Your task to perform on an android device: turn off picture-in-picture Image 0: 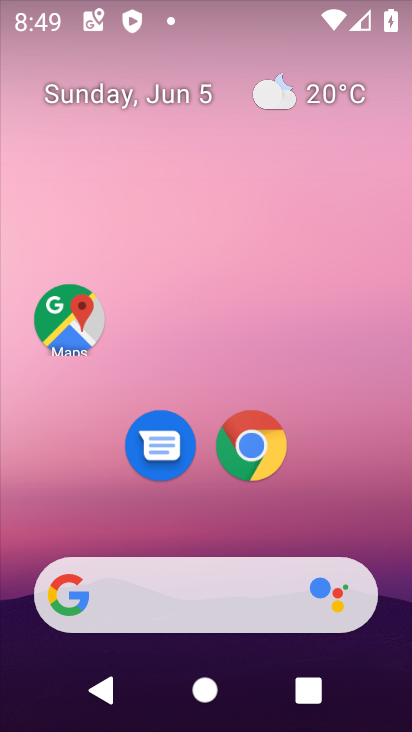
Step 0: drag from (259, 624) to (187, 15)
Your task to perform on an android device: turn off picture-in-picture Image 1: 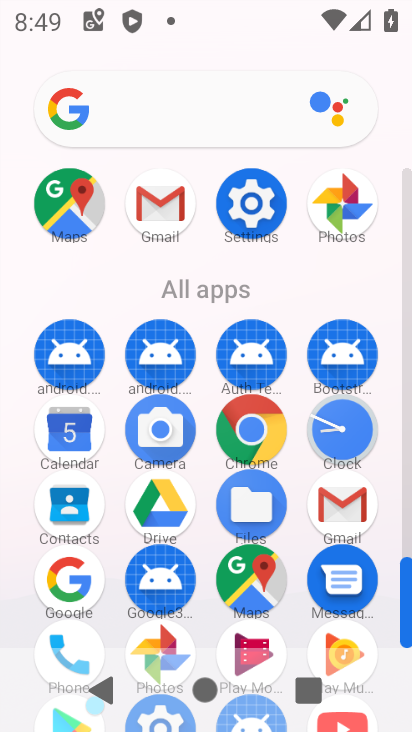
Step 1: click (259, 192)
Your task to perform on an android device: turn off picture-in-picture Image 2: 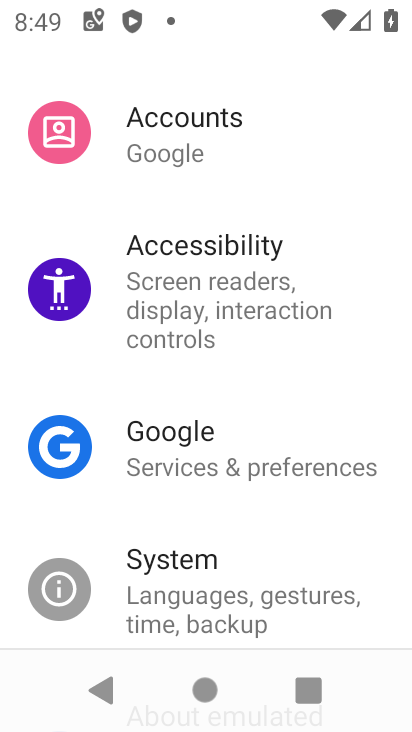
Step 2: drag from (298, 202) to (291, 660)
Your task to perform on an android device: turn off picture-in-picture Image 3: 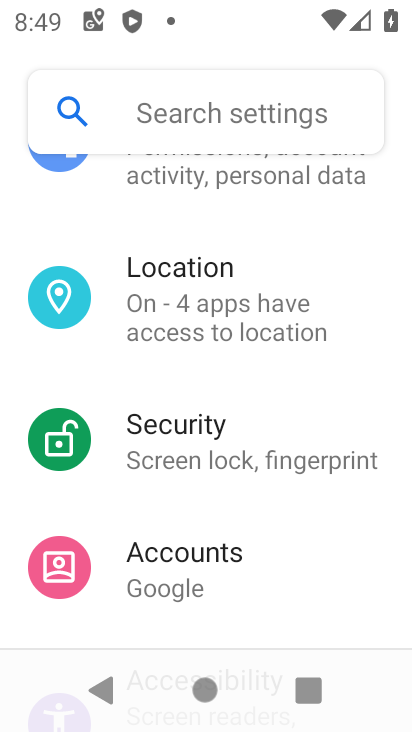
Step 3: drag from (342, 254) to (295, 620)
Your task to perform on an android device: turn off picture-in-picture Image 4: 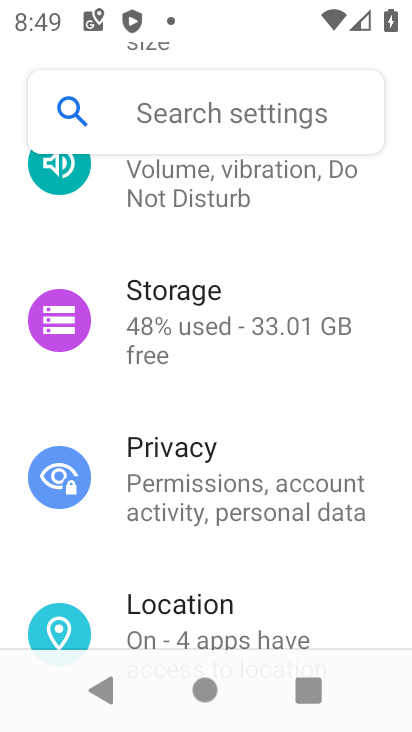
Step 4: drag from (320, 297) to (278, 590)
Your task to perform on an android device: turn off picture-in-picture Image 5: 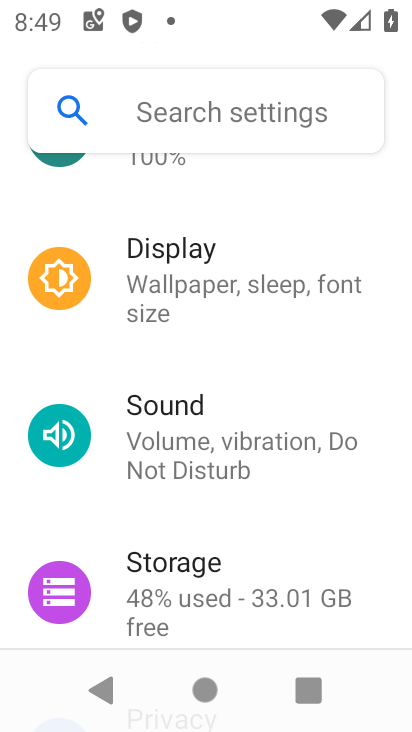
Step 5: drag from (314, 292) to (267, 597)
Your task to perform on an android device: turn off picture-in-picture Image 6: 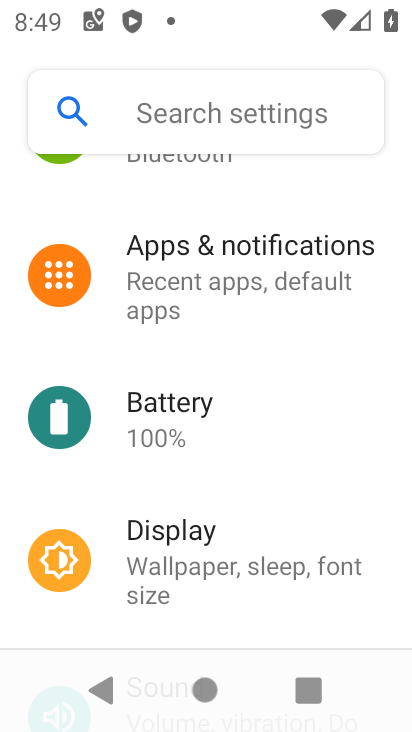
Step 6: click (286, 266)
Your task to perform on an android device: turn off picture-in-picture Image 7: 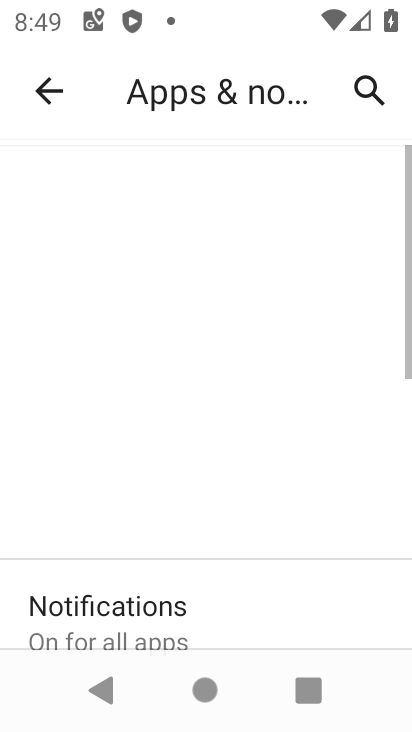
Step 7: drag from (237, 584) to (278, 98)
Your task to perform on an android device: turn off picture-in-picture Image 8: 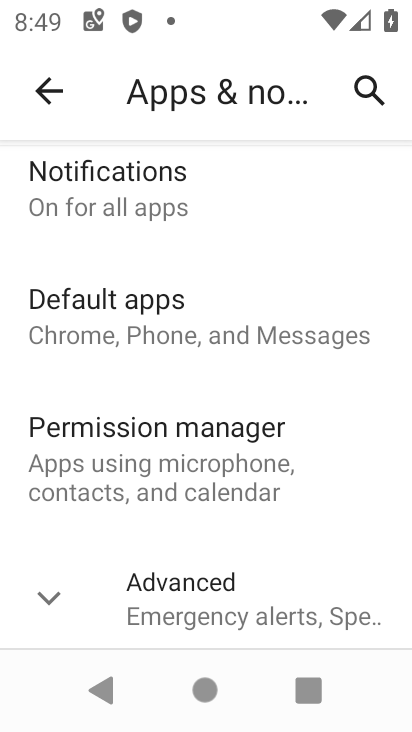
Step 8: click (230, 586)
Your task to perform on an android device: turn off picture-in-picture Image 9: 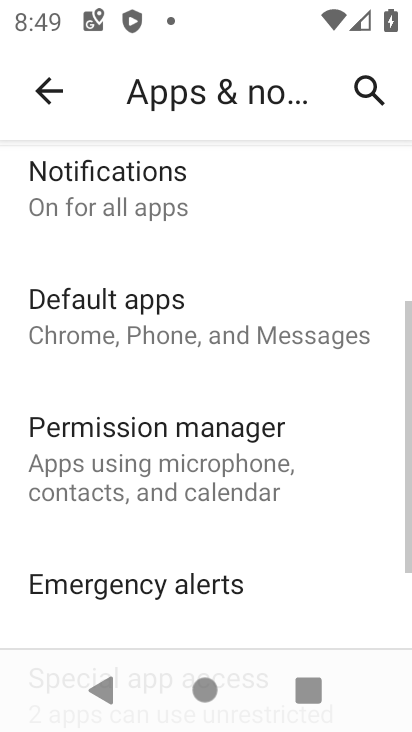
Step 9: drag from (248, 589) to (304, 178)
Your task to perform on an android device: turn off picture-in-picture Image 10: 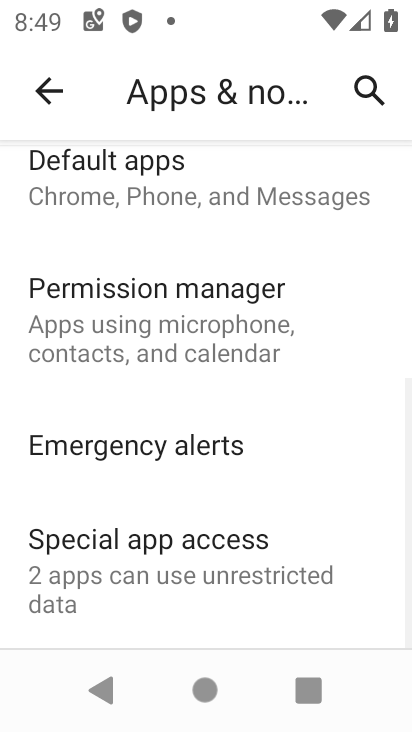
Step 10: click (254, 585)
Your task to perform on an android device: turn off picture-in-picture Image 11: 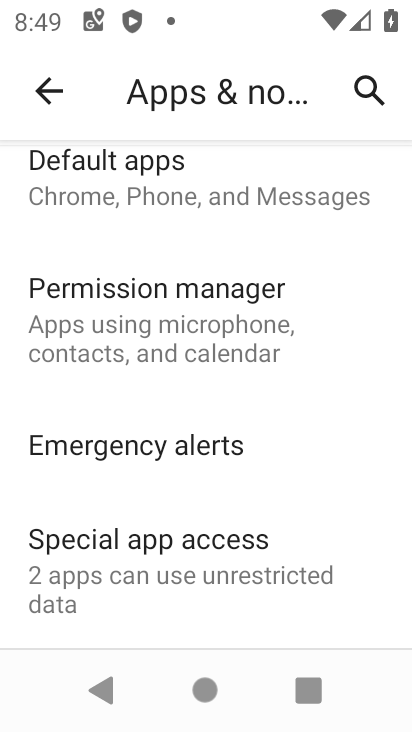
Step 11: click (273, 570)
Your task to perform on an android device: turn off picture-in-picture Image 12: 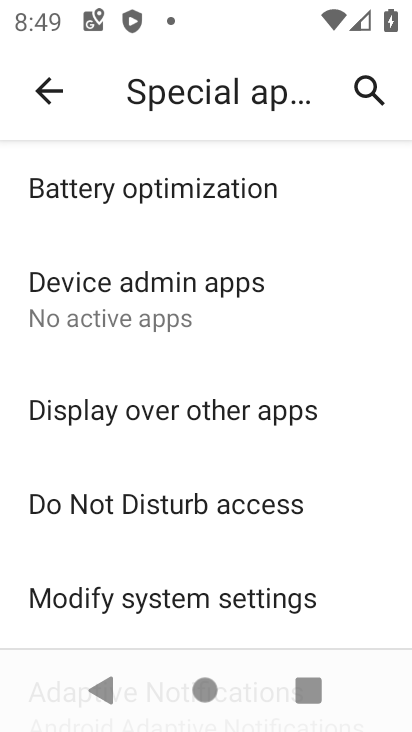
Step 12: drag from (264, 582) to (219, 104)
Your task to perform on an android device: turn off picture-in-picture Image 13: 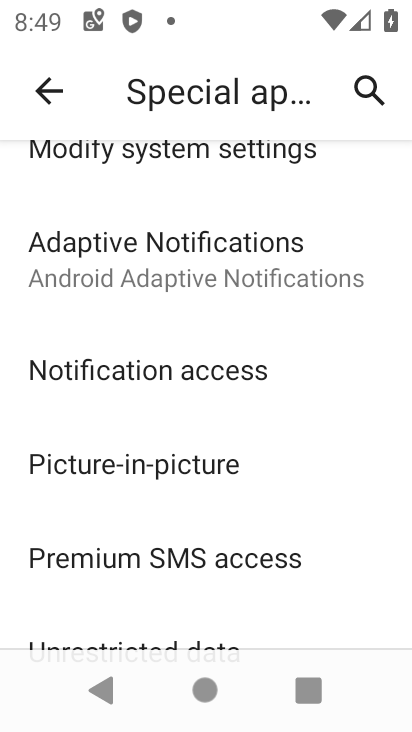
Step 13: click (204, 490)
Your task to perform on an android device: turn off picture-in-picture Image 14: 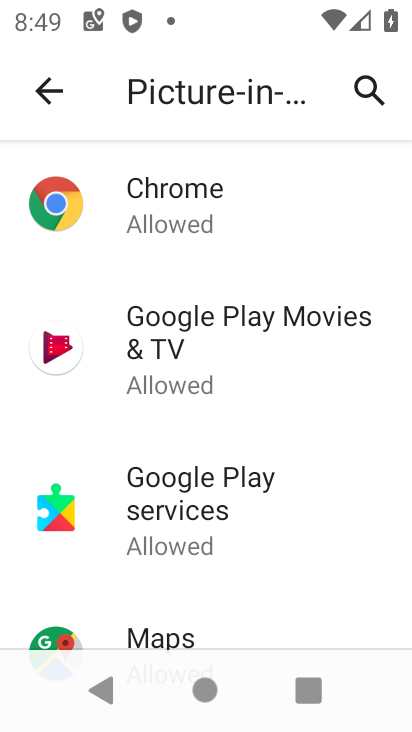
Step 14: task complete